Your task to perform on an android device: Open Google Chrome and click the shortcut for Amazon.com Image 0: 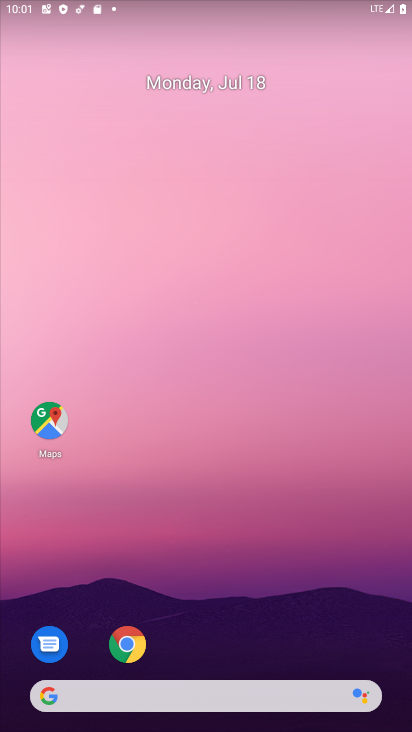
Step 0: drag from (340, 644) to (339, 170)
Your task to perform on an android device: Open Google Chrome and click the shortcut for Amazon.com Image 1: 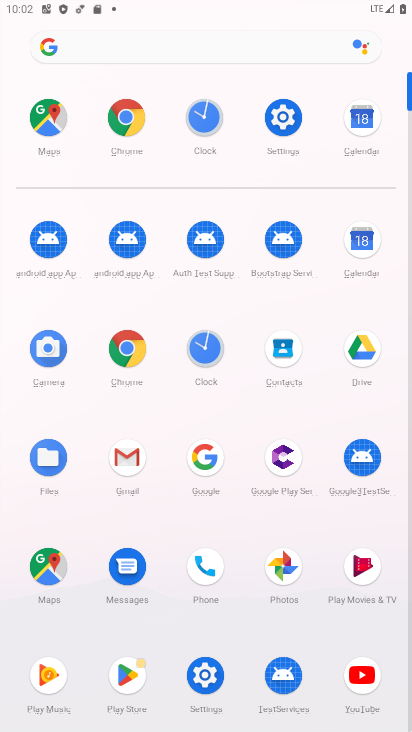
Step 1: click (129, 348)
Your task to perform on an android device: Open Google Chrome and click the shortcut for Amazon.com Image 2: 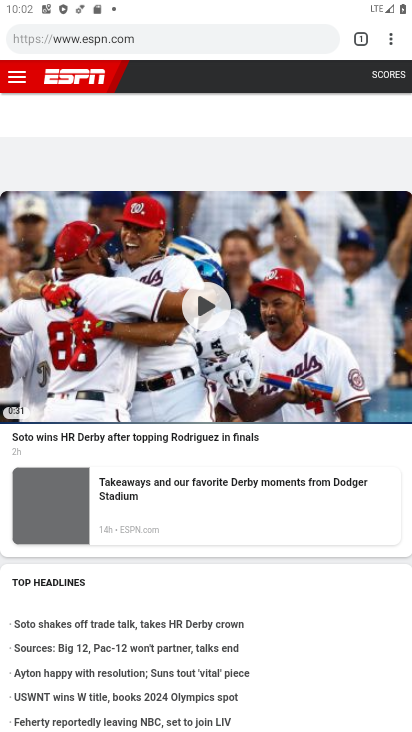
Step 2: press back button
Your task to perform on an android device: Open Google Chrome and click the shortcut for Amazon.com Image 3: 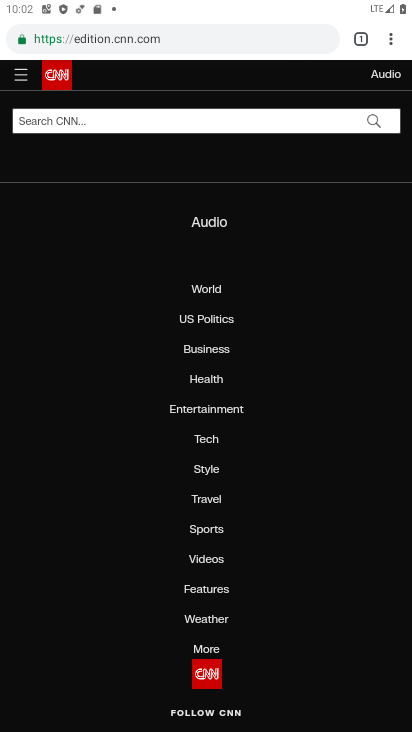
Step 3: press back button
Your task to perform on an android device: Open Google Chrome and click the shortcut for Amazon.com Image 4: 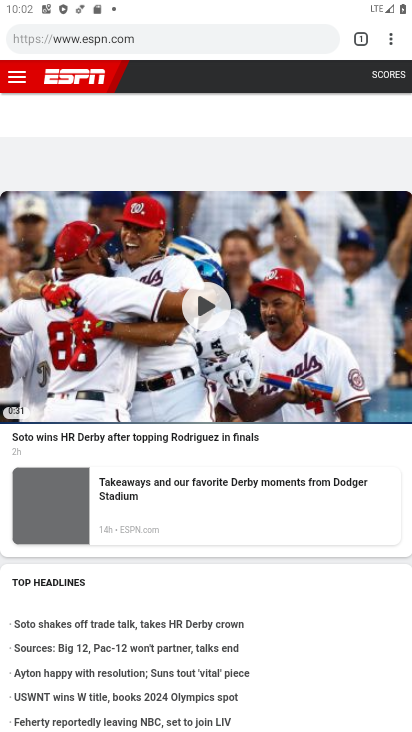
Step 4: press back button
Your task to perform on an android device: Open Google Chrome and click the shortcut for Amazon.com Image 5: 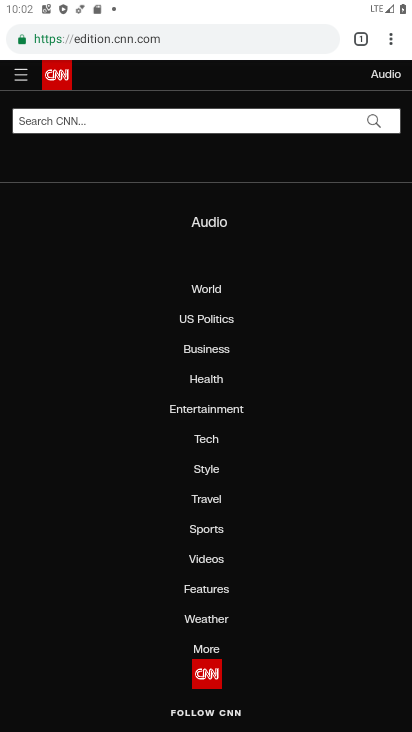
Step 5: press back button
Your task to perform on an android device: Open Google Chrome and click the shortcut for Amazon.com Image 6: 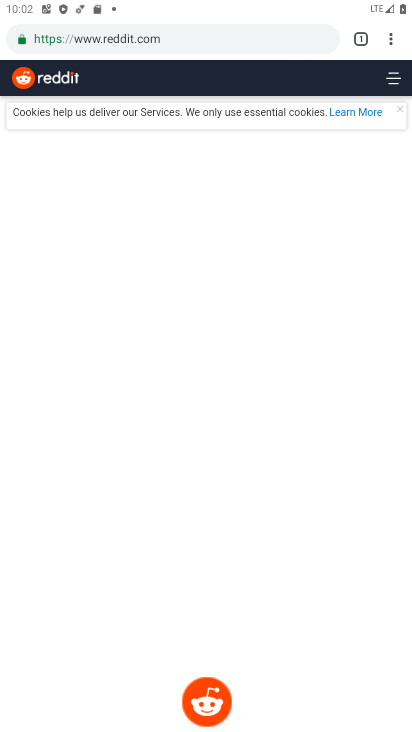
Step 6: press back button
Your task to perform on an android device: Open Google Chrome and click the shortcut for Amazon.com Image 7: 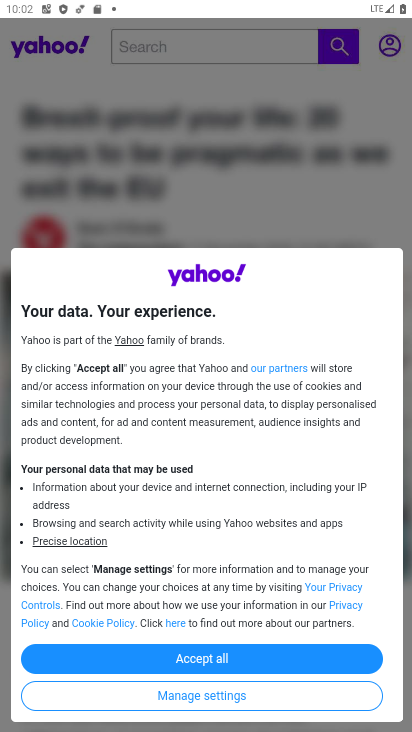
Step 7: press back button
Your task to perform on an android device: Open Google Chrome and click the shortcut for Amazon.com Image 8: 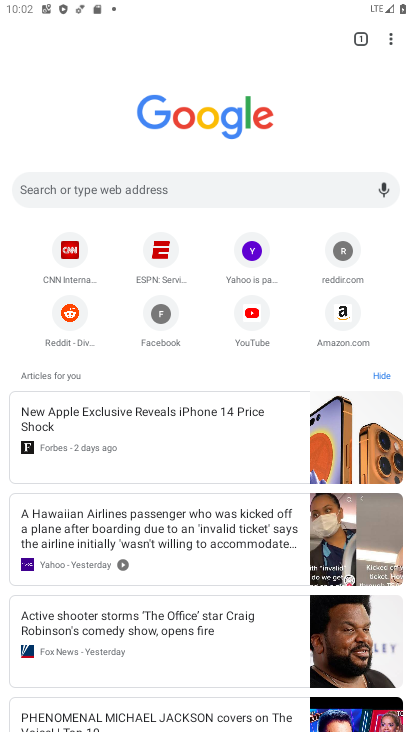
Step 8: click (348, 319)
Your task to perform on an android device: Open Google Chrome and click the shortcut for Amazon.com Image 9: 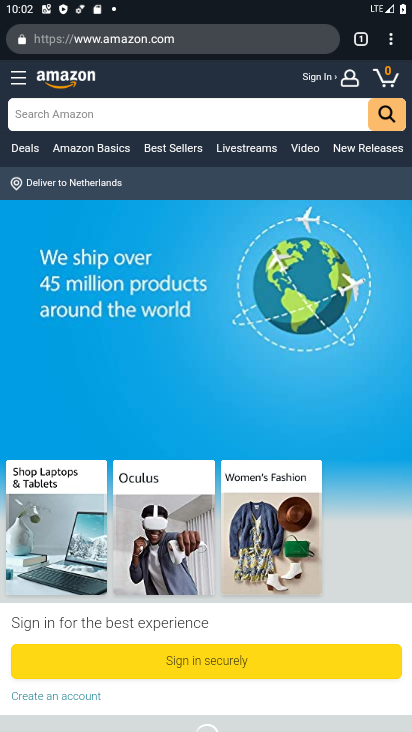
Step 9: task complete